Your task to perform on an android device: turn off javascript in the chrome app Image 0: 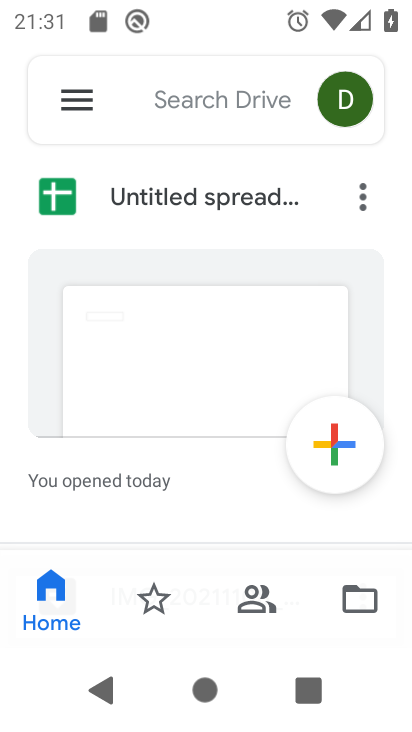
Step 0: press home button
Your task to perform on an android device: turn off javascript in the chrome app Image 1: 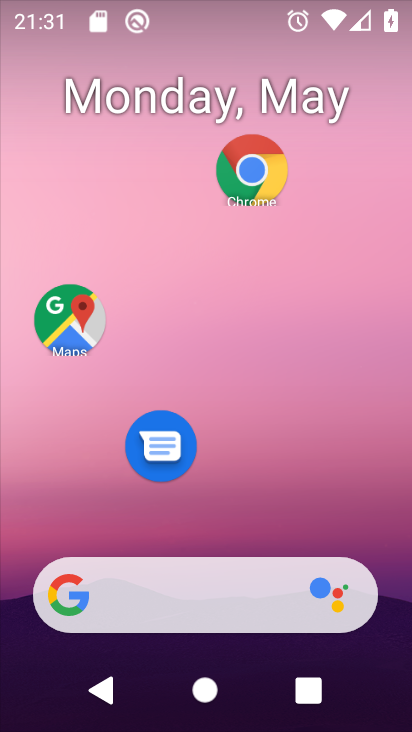
Step 1: click (246, 163)
Your task to perform on an android device: turn off javascript in the chrome app Image 2: 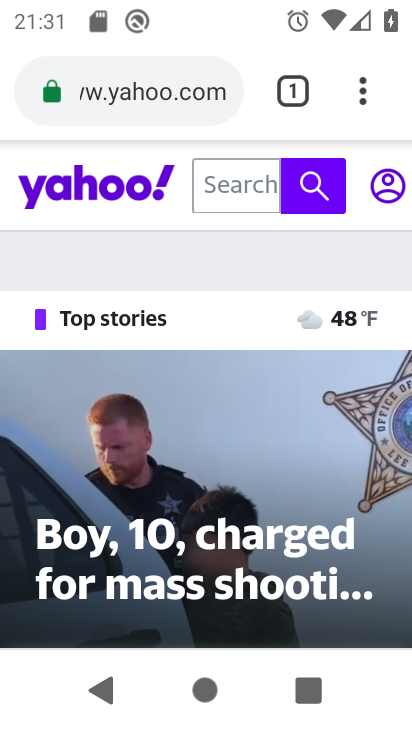
Step 2: click (365, 87)
Your task to perform on an android device: turn off javascript in the chrome app Image 3: 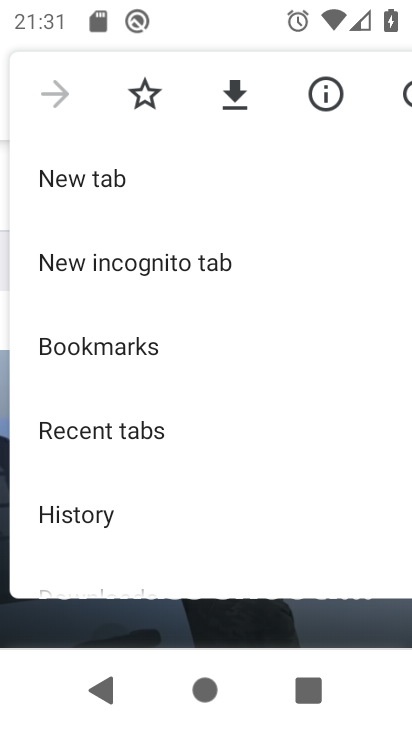
Step 3: drag from (193, 532) to (242, 189)
Your task to perform on an android device: turn off javascript in the chrome app Image 4: 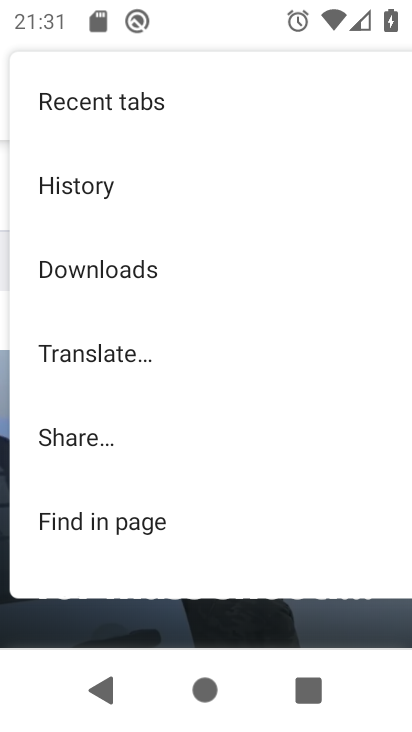
Step 4: drag from (210, 516) to (231, 79)
Your task to perform on an android device: turn off javascript in the chrome app Image 5: 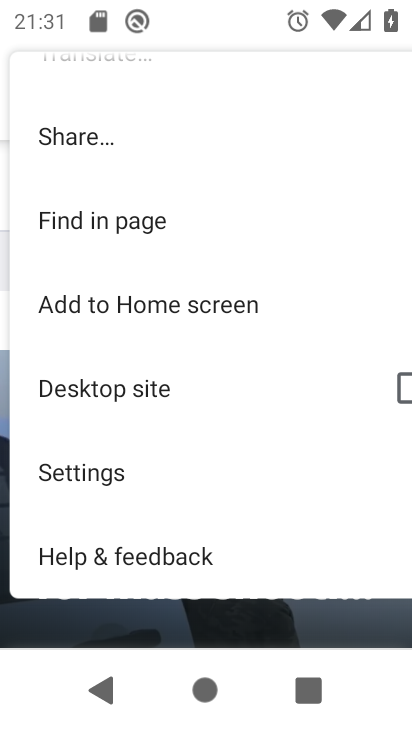
Step 5: click (145, 470)
Your task to perform on an android device: turn off javascript in the chrome app Image 6: 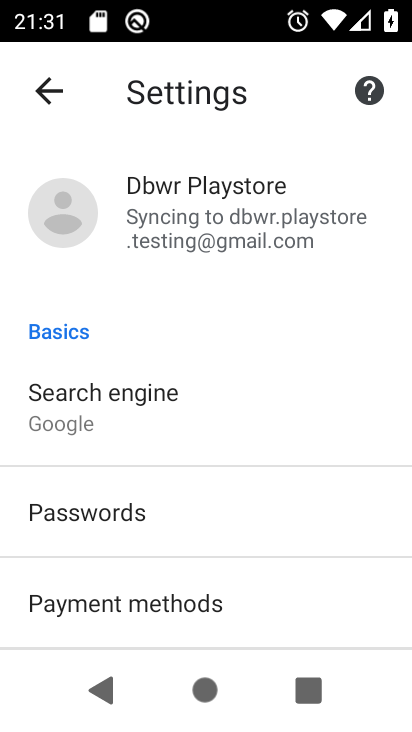
Step 6: drag from (248, 620) to (268, 197)
Your task to perform on an android device: turn off javascript in the chrome app Image 7: 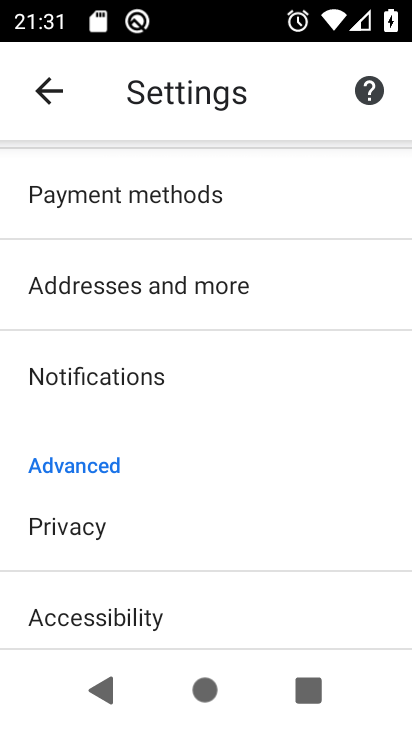
Step 7: drag from (244, 619) to (263, 119)
Your task to perform on an android device: turn off javascript in the chrome app Image 8: 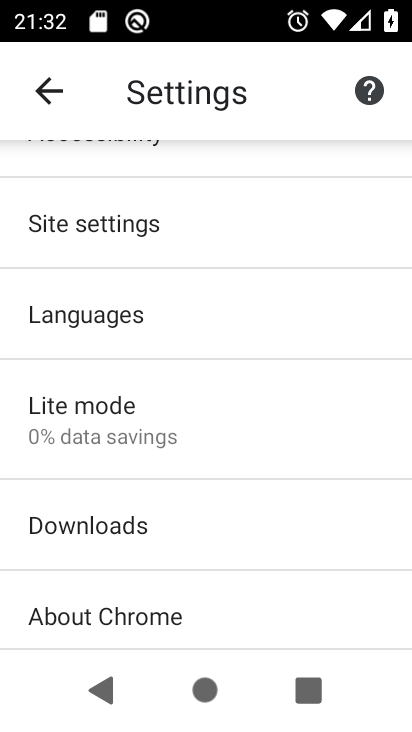
Step 8: click (181, 223)
Your task to perform on an android device: turn off javascript in the chrome app Image 9: 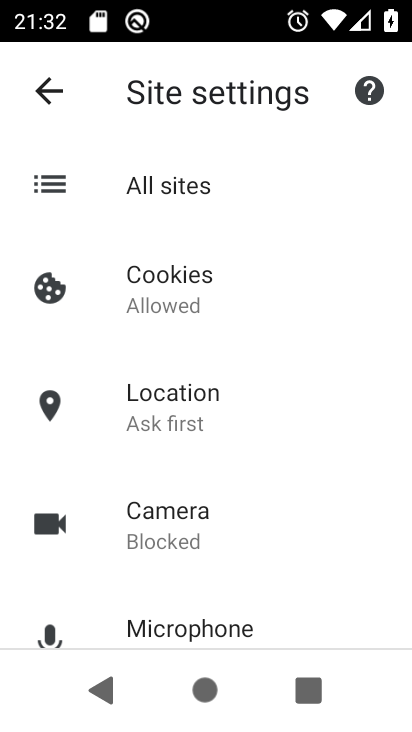
Step 9: drag from (254, 591) to (255, 177)
Your task to perform on an android device: turn off javascript in the chrome app Image 10: 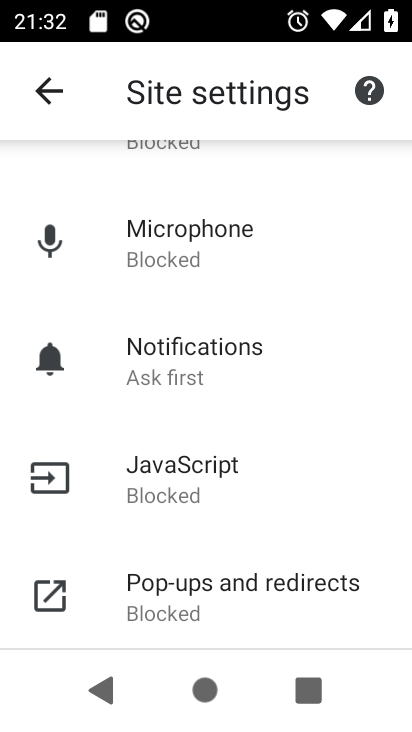
Step 10: click (259, 490)
Your task to perform on an android device: turn off javascript in the chrome app Image 11: 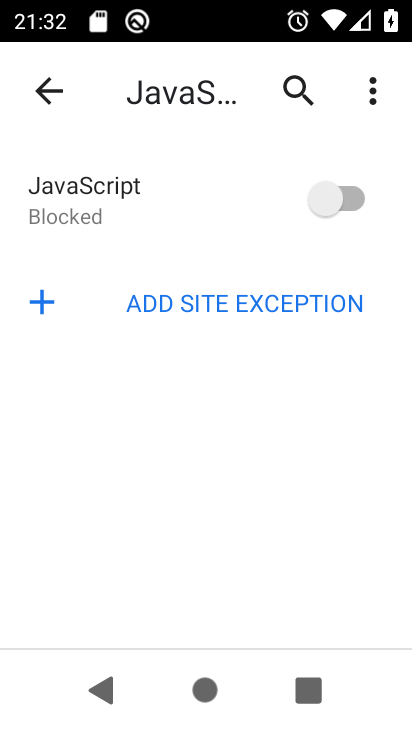
Step 11: task complete